Your task to perform on an android device: Open maps Image 0: 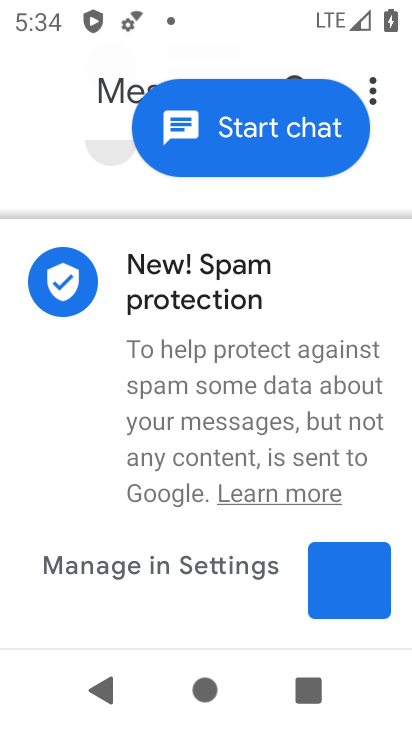
Step 0: press home button
Your task to perform on an android device: Open maps Image 1: 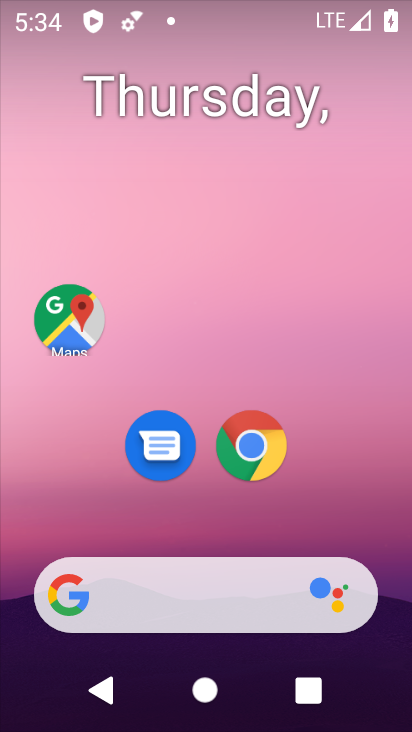
Step 1: click (72, 314)
Your task to perform on an android device: Open maps Image 2: 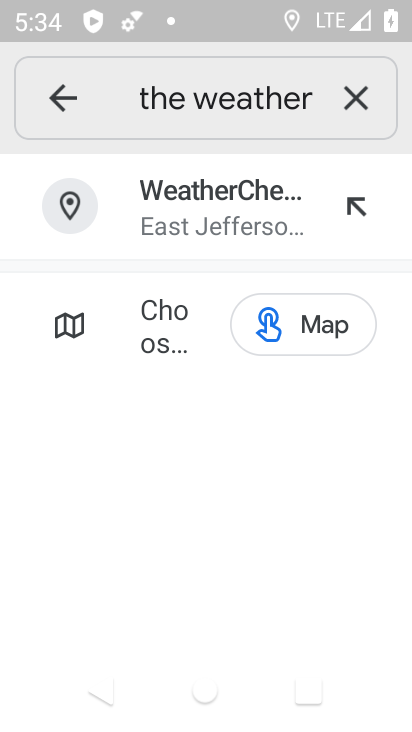
Step 2: click (69, 101)
Your task to perform on an android device: Open maps Image 3: 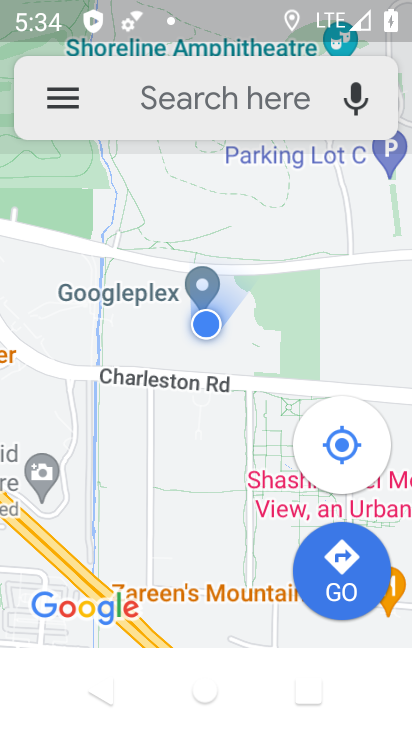
Step 3: task complete